Your task to perform on an android device: turn off notifications settings in the gmail app Image 0: 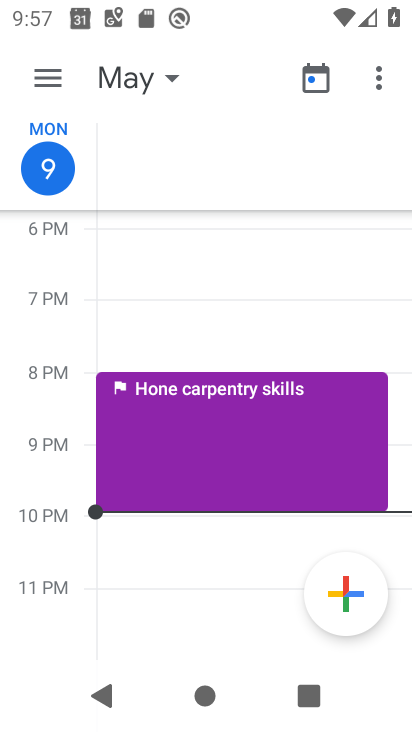
Step 0: press back button
Your task to perform on an android device: turn off notifications settings in the gmail app Image 1: 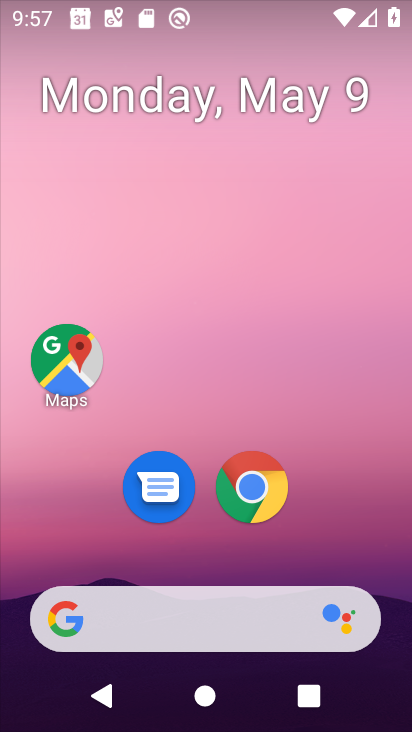
Step 1: drag from (388, 546) to (308, 27)
Your task to perform on an android device: turn off notifications settings in the gmail app Image 2: 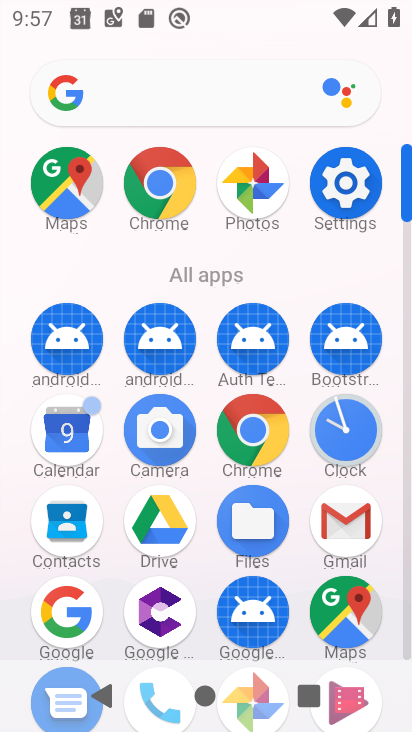
Step 2: drag from (3, 635) to (0, 346)
Your task to perform on an android device: turn off notifications settings in the gmail app Image 3: 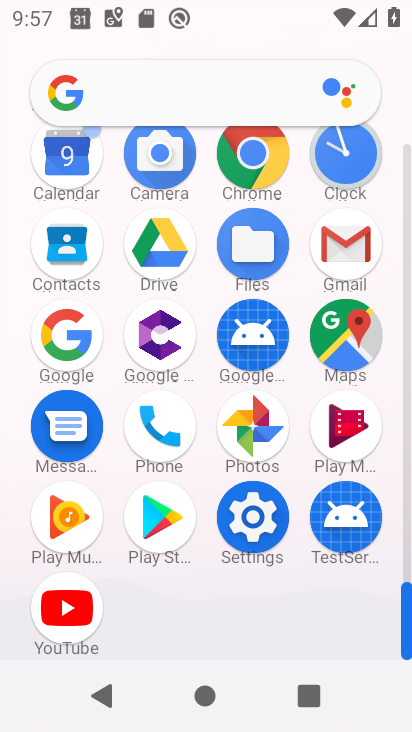
Step 3: click (346, 242)
Your task to perform on an android device: turn off notifications settings in the gmail app Image 4: 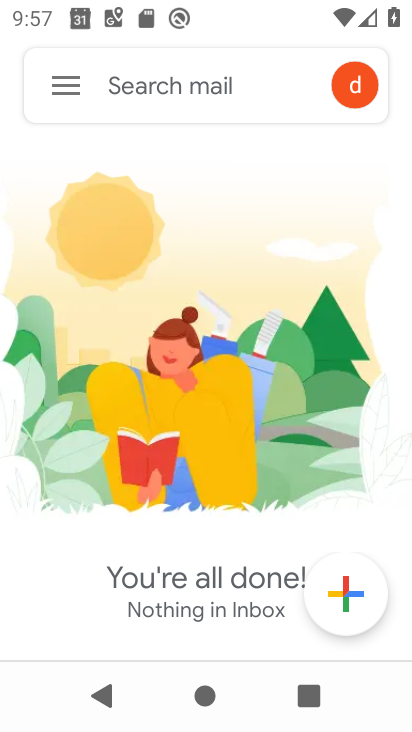
Step 4: click (57, 90)
Your task to perform on an android device: turn off notifications settings in the gmail app Image 5: 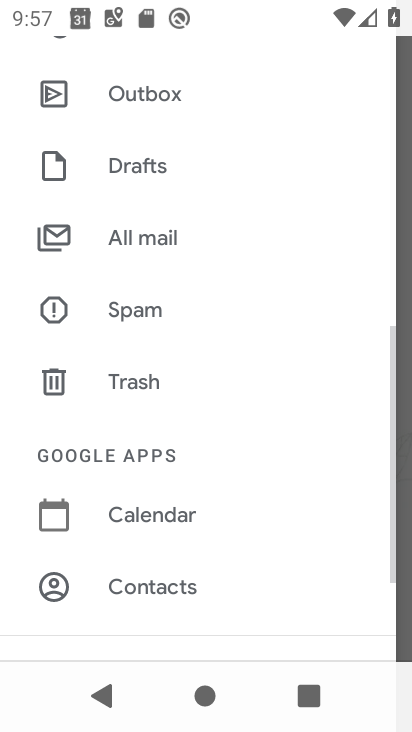
Step 5: drag from (220, 522) to (234, 180)
Your task to perform on an android device: turn off notifications settings in the gmail app Image 6: 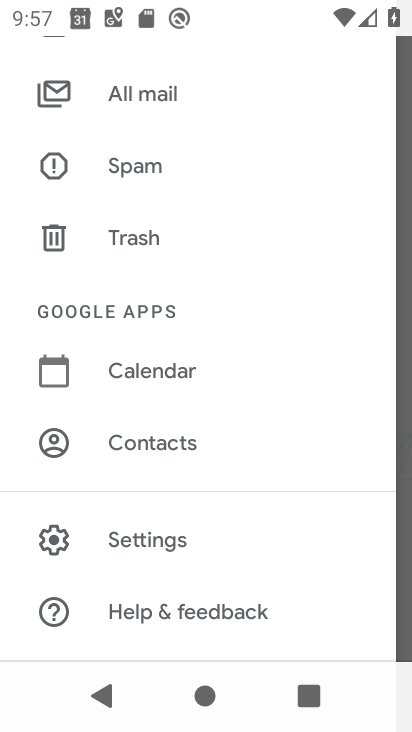
Step 6: click (146, 531)
Your task to perform on an android device: turn off notifications settings in the gmail app Image 7: 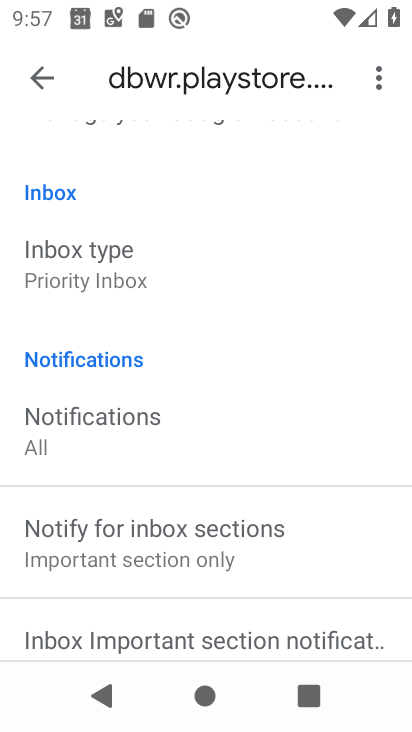
Step 7: drag from (258, 560) to (253, 180)
Your task to perform on an android device: turn off notifications settings in the gmail app Image 8: 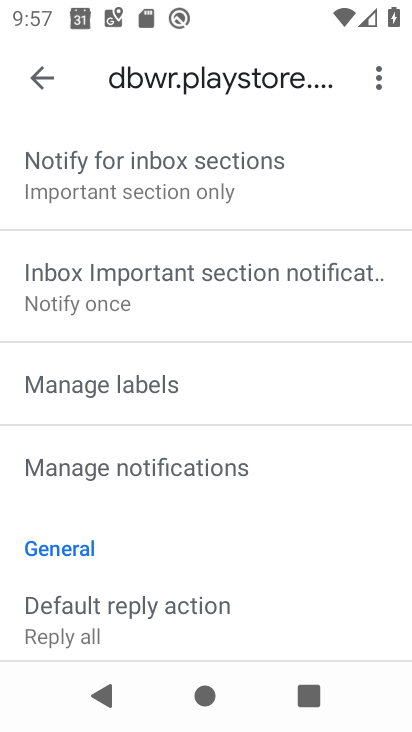
Step 8: click (150, 477)
Your task to perform on an android device: turn off notifications settings in the gmail app Image 9: 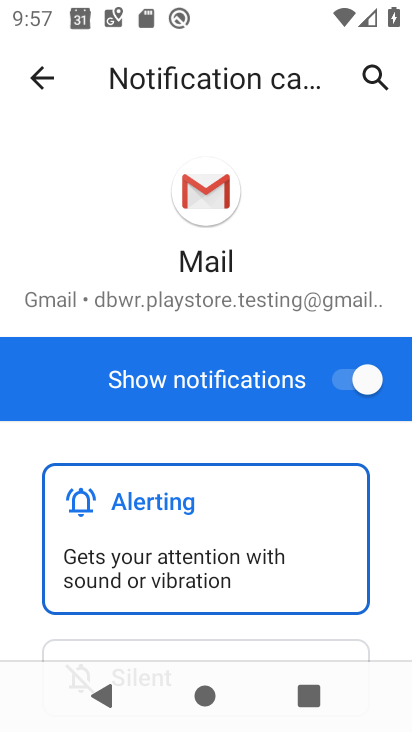
Step 9: click (331, 385)
Your task to perform on an android device: turn off notifications settings in the gmail app Image 10: 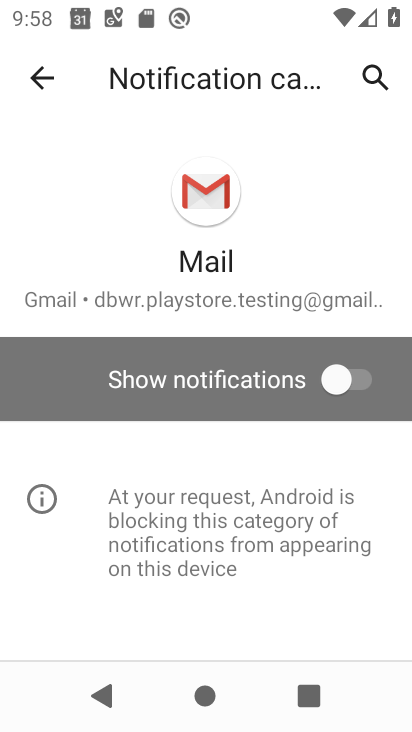
Step 10: task complete